Your task to perform on an android device: Open calendar and show me the second week of next month Image 0: 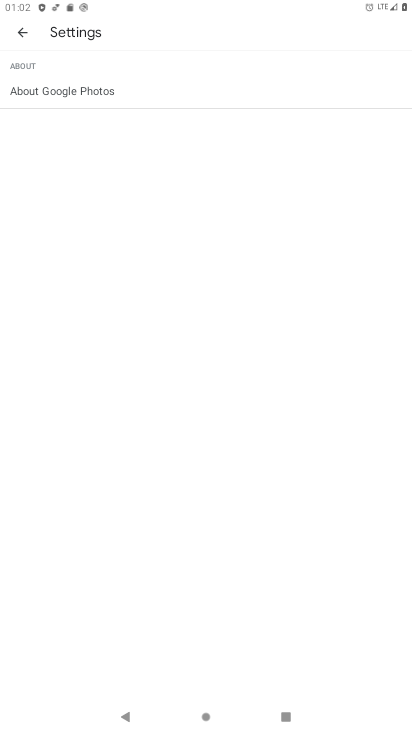
Step 0: press home button
Your task to perform on an android device: Open calendar and show me the second week of next month Image 1: 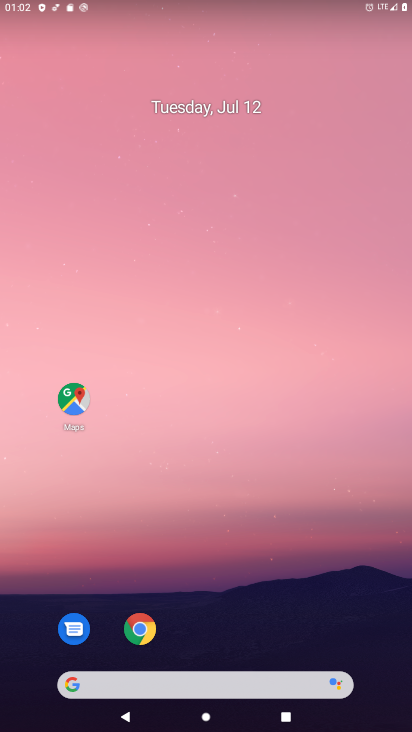
Step 1: drag from (104, 576) to (350, 7)
Your task to perform on an android device: Open calendar and show me the second week of next month Image 2: 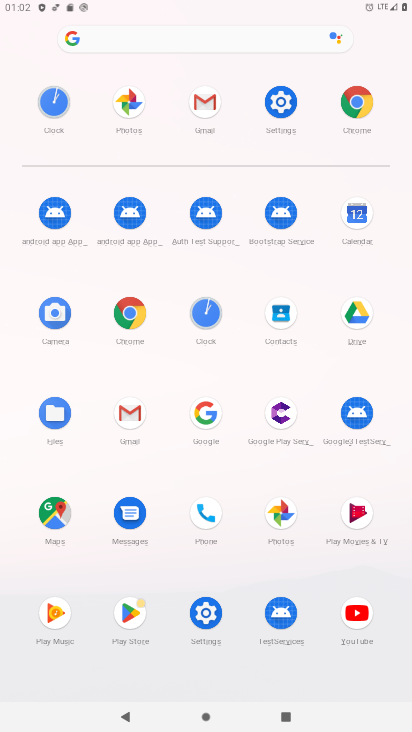
Step 2: click (346, 216)
Your task to perform on an android device: Open calendar and show me the second week of next month Image 3: 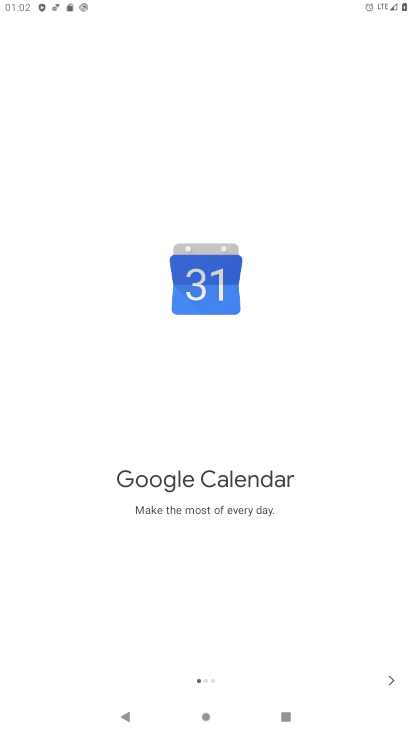
Step 3: click (393, 674)
Your task to perform on an android device: Open calendar and show me the second week of next month Image 4: 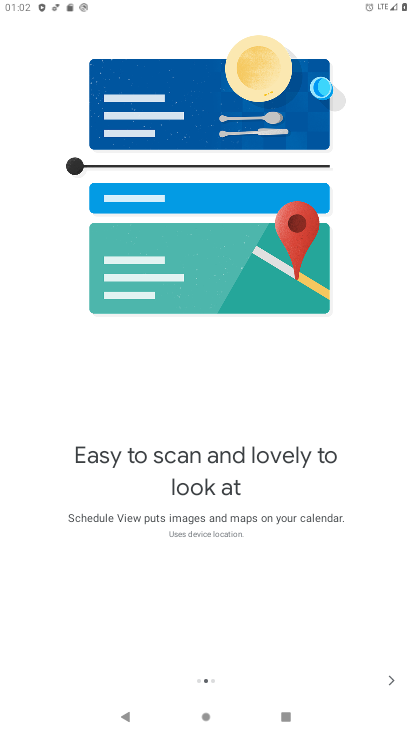
Step 4: click (385, 675)
Your task to perform on an android device: Open calendar and show me the second week of next month Image 5: 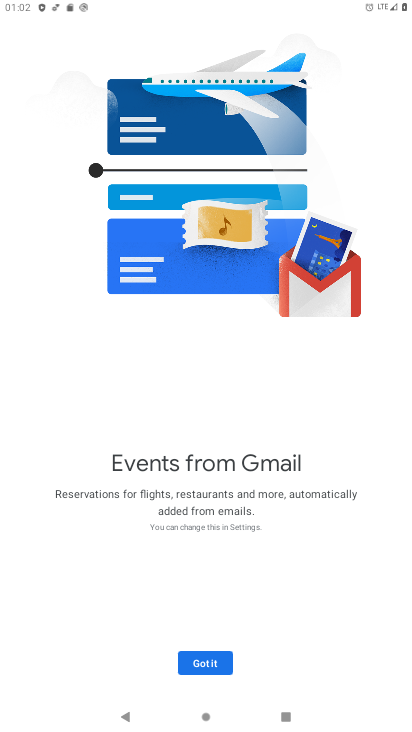
Step 5: click (187, 660)
Your task to perform on an android device: Open calendar and show me the second week of next month Image 6: 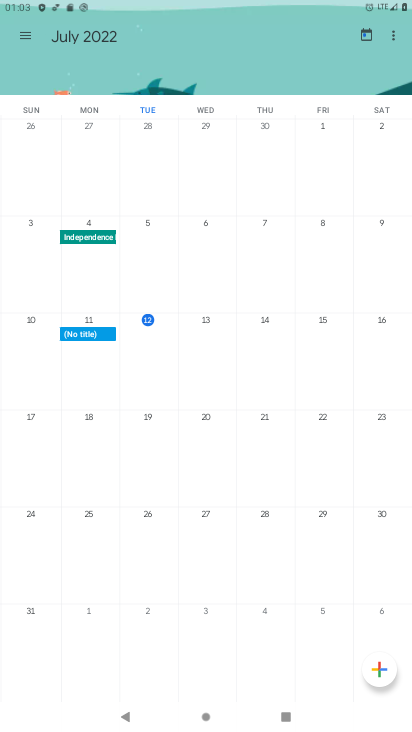
Step 6: drag from (250, 350) to (49, 308)
Your task to perform on an android device: Open calendar and show me the second week of next month Image 7: 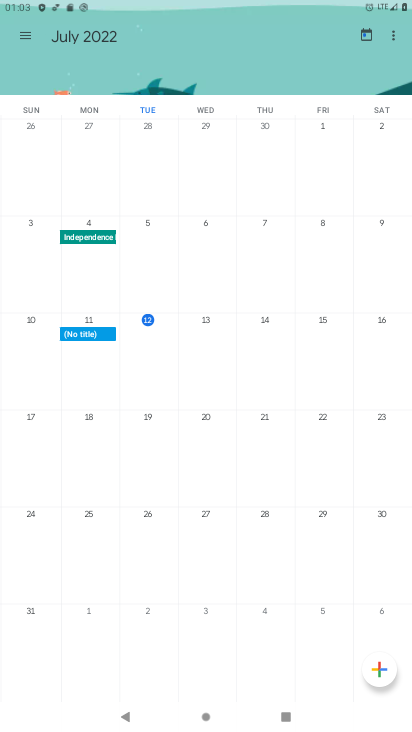
Step 7: drag from (379, 199) to (46, 232)
Your task to perform on an android device: Open calendar and show me the second week of next month Image 8: 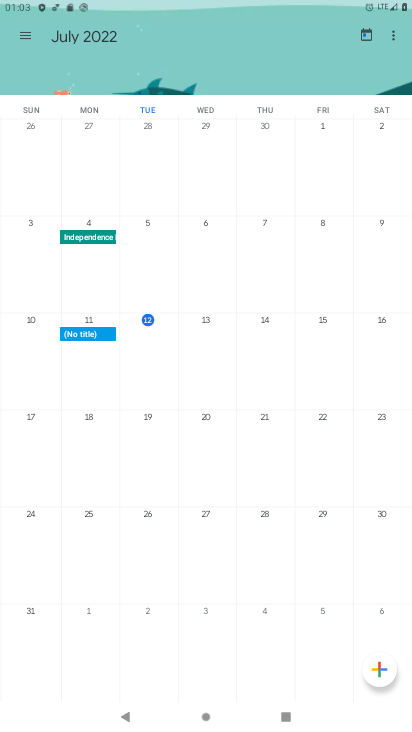
Step 8: drag from (376, 485) to (1, 484)
Your task to perform on an android device: Open calendar and show me the second week of next month Image 9: 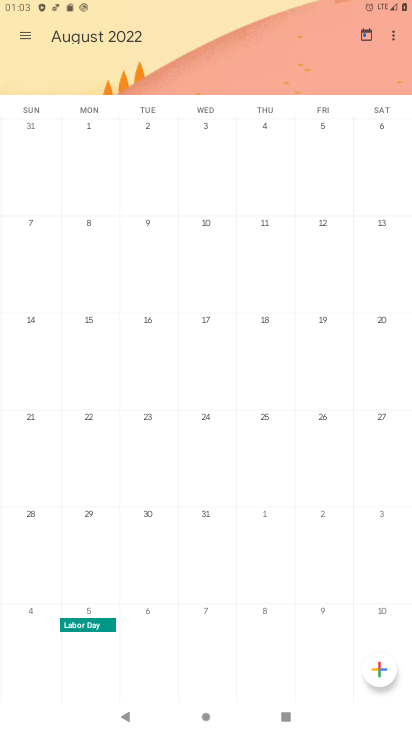
Step 9: click (96, 234)
Your task to perform on an android device: Open calendar and show me the second week of next month Image 10: 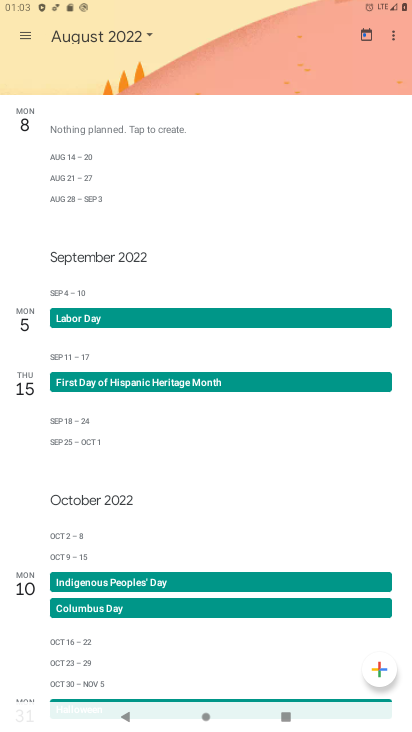
Step 10: task complete